Your task to perform on an android device: Go to CNN.com Image 0: 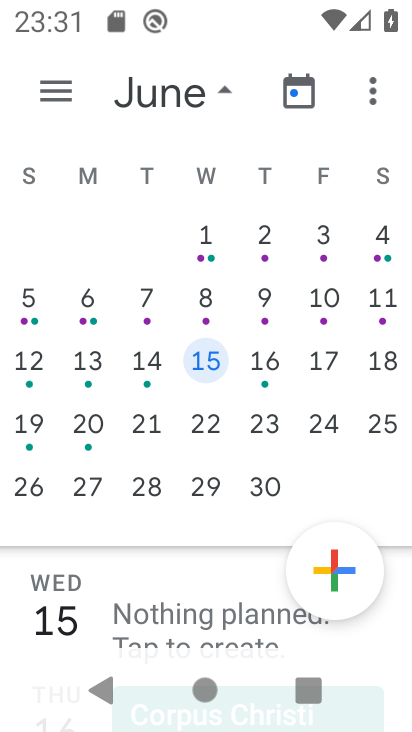
Step 0: press home button
Your task to perform on an android device: Go to CNN.com Image 1: 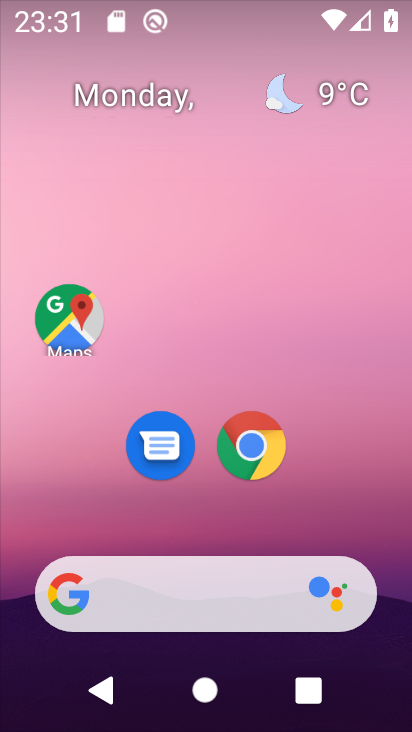
Step 1: drag from (224, 576) to (263, 105)
Your task to perform on an android device: Go to CNN.com Image 2: 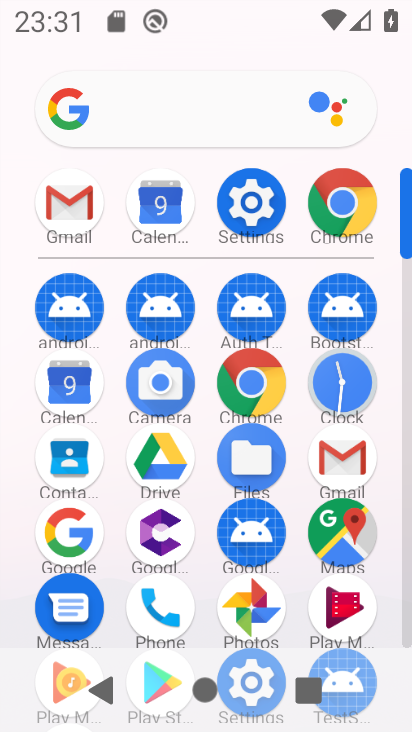
Step 2: click (262, 388)
Your task to perform on an android device: Go to CNN.com Image 3: 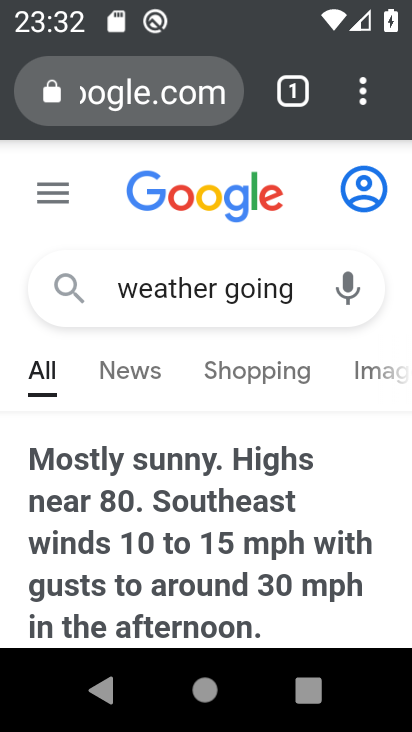
Step 3: click (230, 102)
Your task to perform on an android device: Go to CNN.com Image 4: 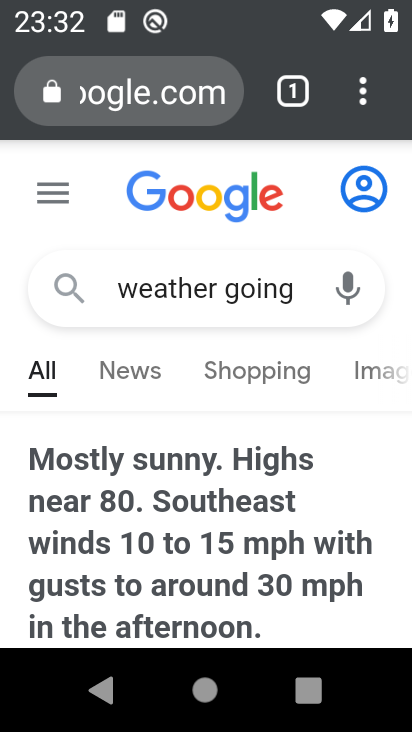
Step 4: click (210, 98)
Your task to perform on an android device: Go to CNN.com Image 5: 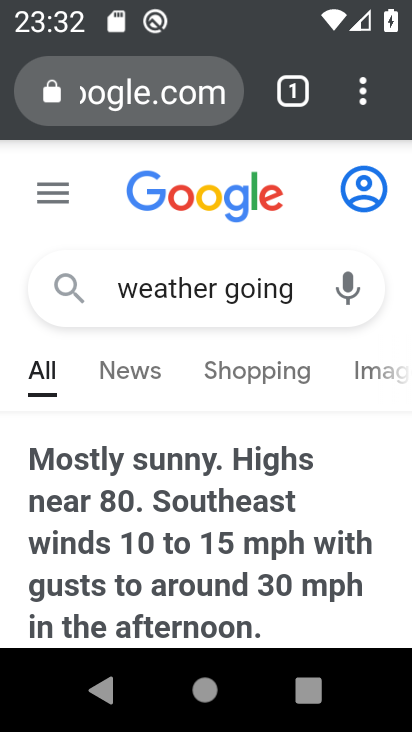
Step 5: click (210, 98)
Your task to perform on an android device: Go to CNN.com Image 6: 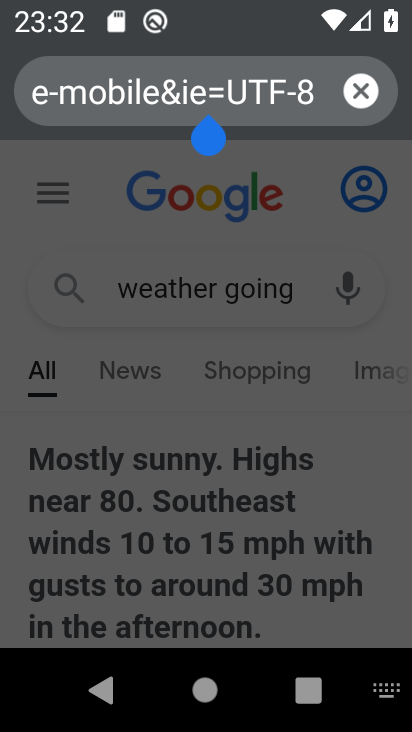
Step 6: click (359, 99)
Your task to perform on an android device: Go to CNN.com Image 7: 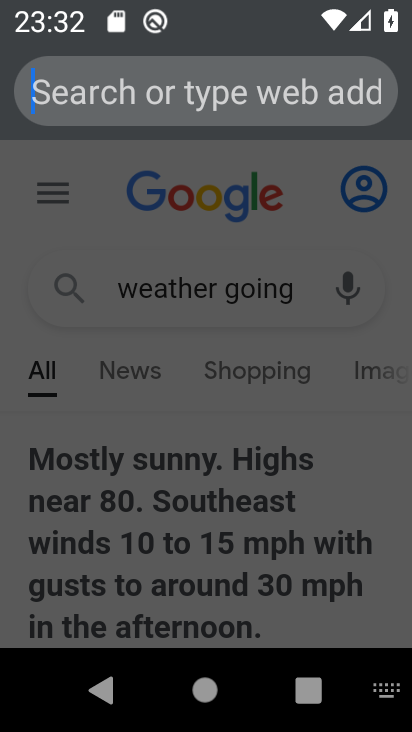
Step 7: type "cnn.com"
Your task to perform on an android device: Go to CNN.com Image 8: 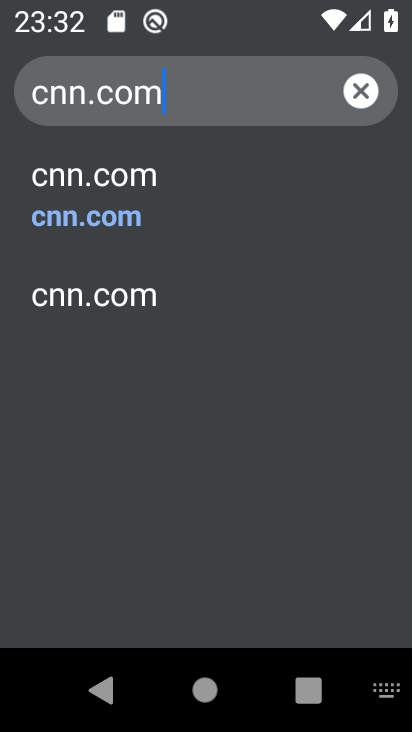
Step 8: click (111, 205)
Your task to perform on an android device: Go to CNN.com Image 9: 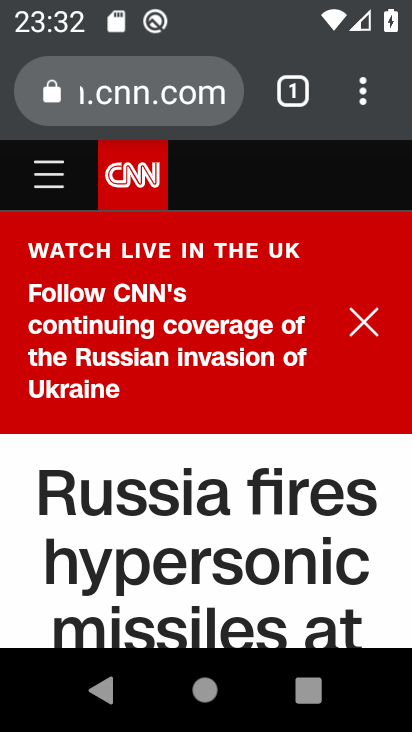
Step 9: task complete